Your task to perform on an android device: What's the weather today? Image 0: 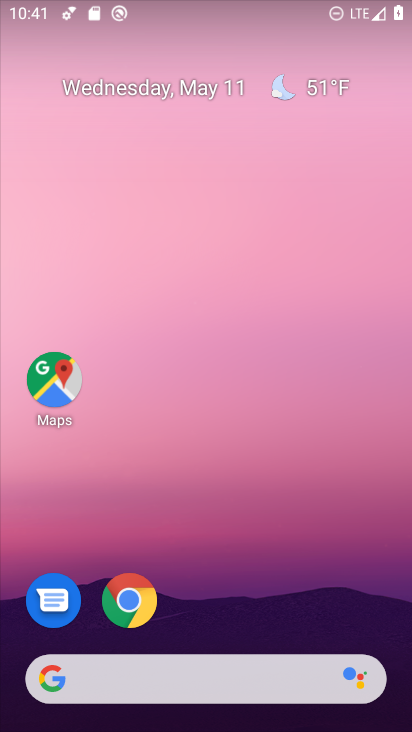
Step 0: click (134, 597)
Your task to perform on an android device: What's the weather today? Image 1: 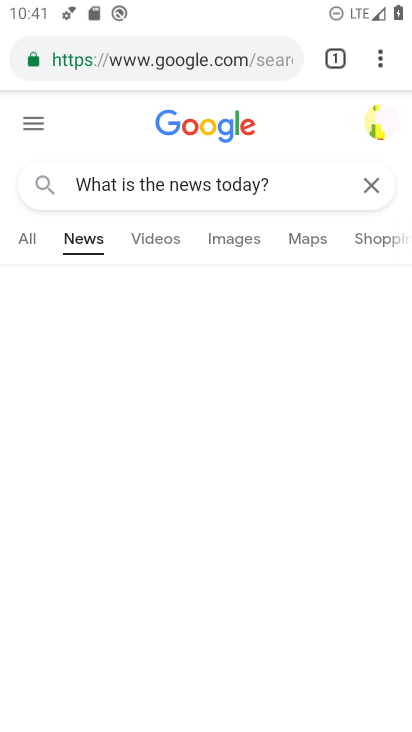
Step 1: click (372, 181)
Your task to perform on an android device: What's the weather today? Image 2: 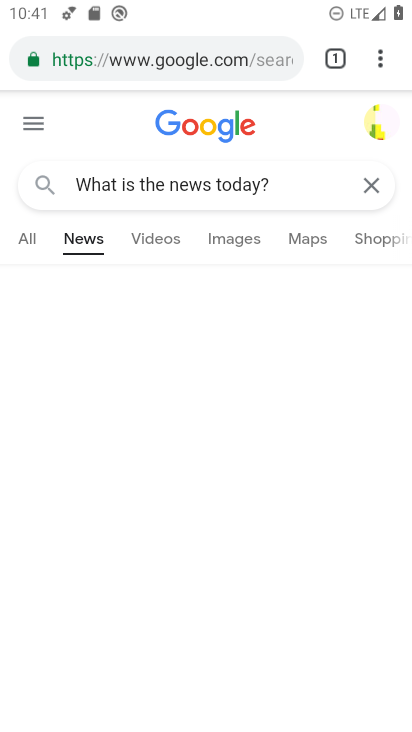
Step 2: click (310, 183)
Your task to perform on an android device: What's the weather today? Image 3: 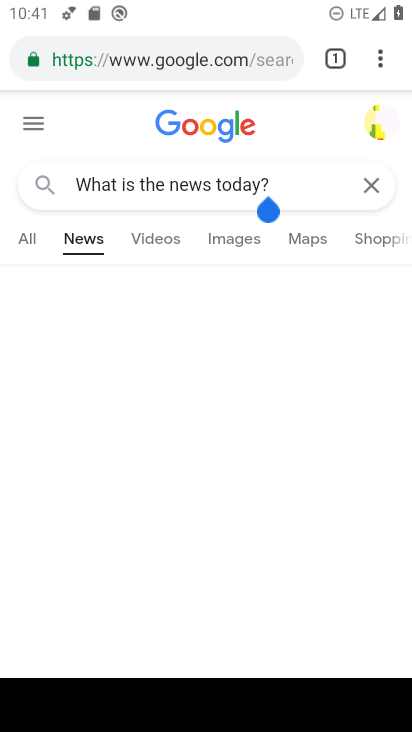
Step 3: click (363, 185)
Your task to perform on an android device: What's the weather today? Image 4: 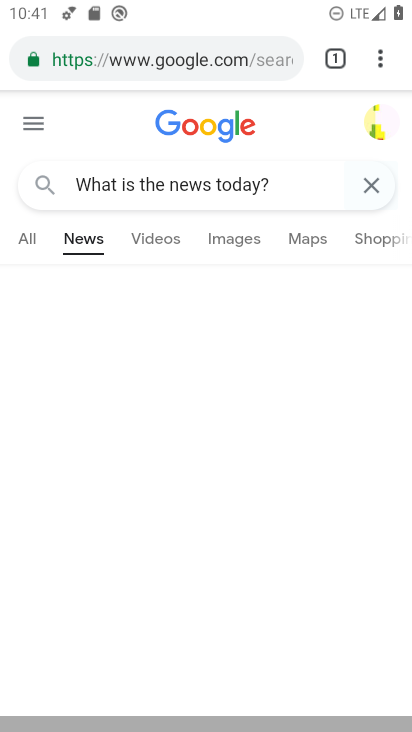
Step 4: click (363, 185)
Your task to perform on an android device: What's the weather today? Image 5: 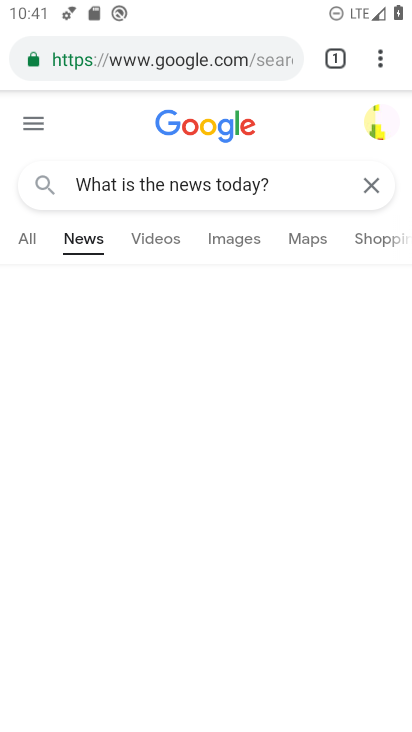
Step 5: click (375, 185)
Your task to perform on an android device: What's the weather today? Image 6: 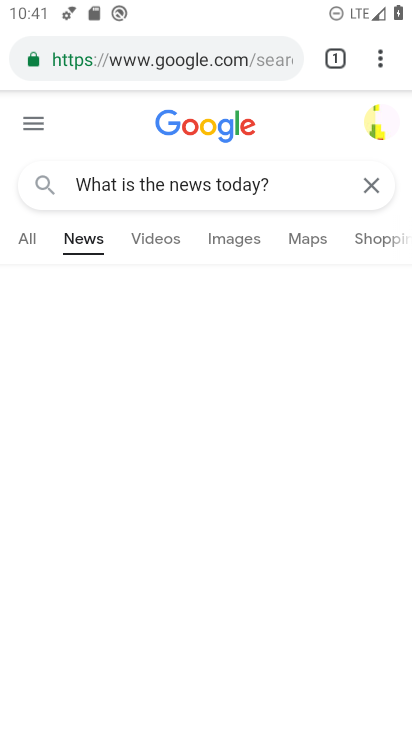
Step 6: click (308, 186)
Your task to perform on an android device: What's the weather today? Image 7: 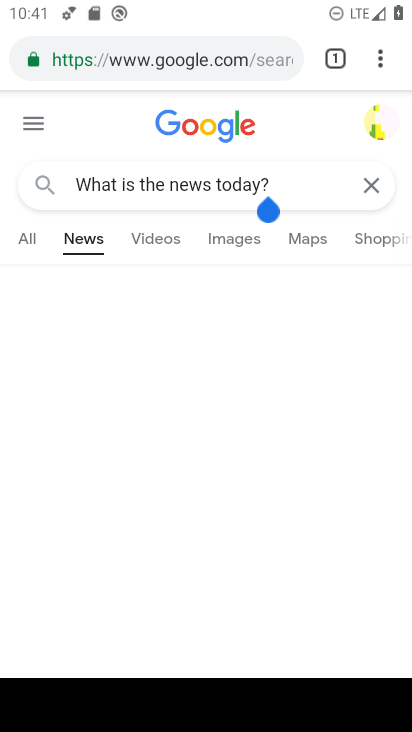
Step 7: click (364, 185)
Your task to perform on an android device: What's the weather today? Image 8: 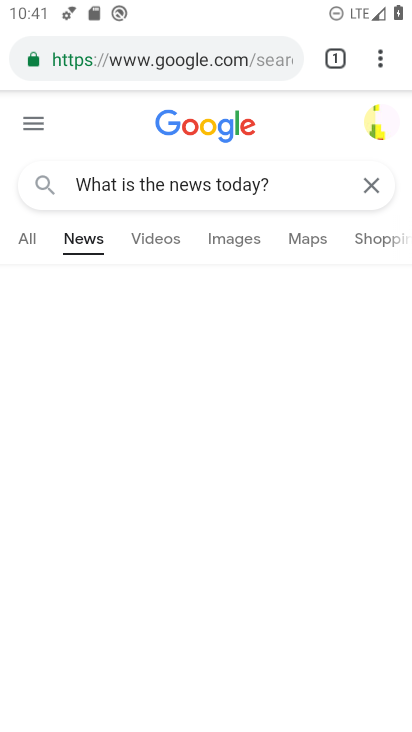
Step 8: drag from (381, 54) to (167, 197)
Your task to perform on an android device: What's the weather today? Image 9: 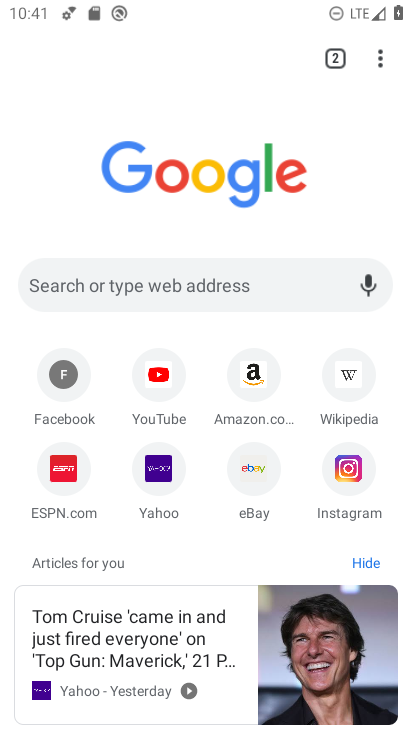
Step 9: click (183, 289)
Your task to perform on an android device: What's the weather today? Image 10: 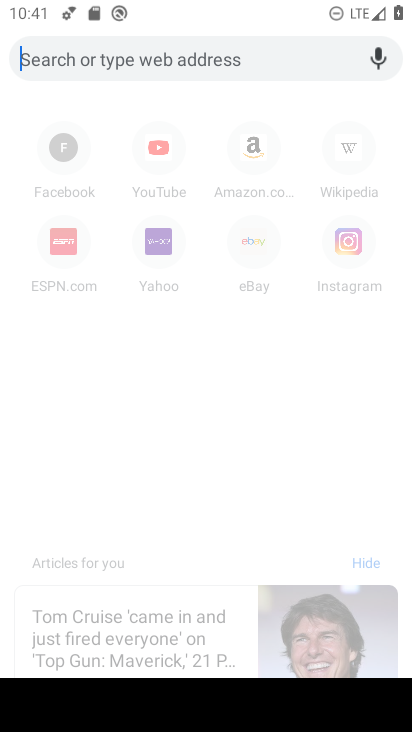
Step 10: type "What's the weather today?"
Your task to perform on an android device: What's the weather today? Image 11: 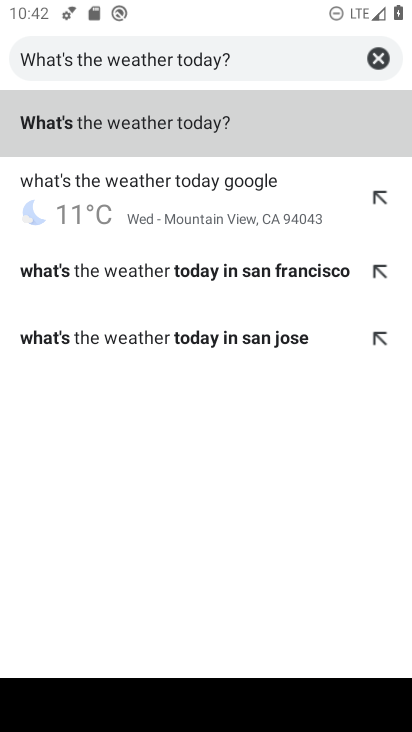
Step 11: click (146, 118)
Your task to perform on an android device: What's the weather today? Image 12: 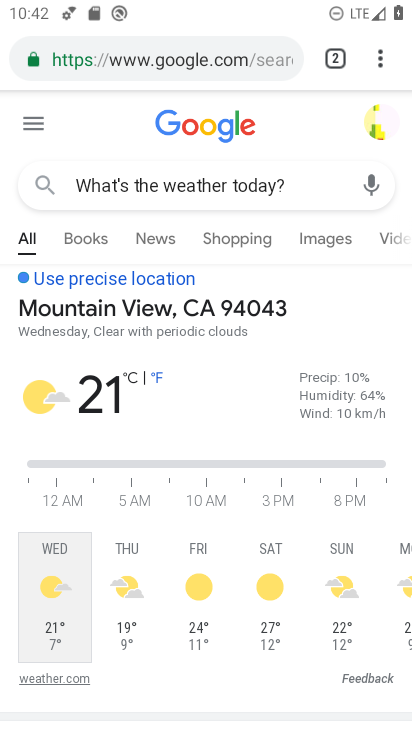
Step 12: task complete